Your task to perform on an android device: What's on my calendar today? Image 0: 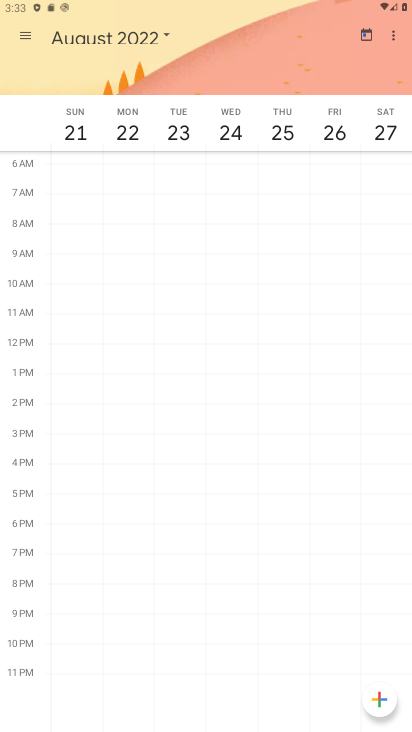
Step 0: press home button
Your task to perform on an android device: What's on my calendar today? Image 1: 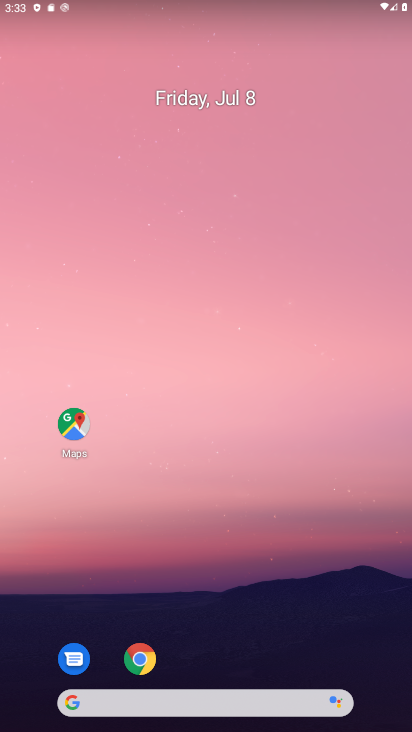
Step 1: drag from (312, 586) to (282, 24)
Your task to perform on an android device: What's on my calendar today? Image 2: 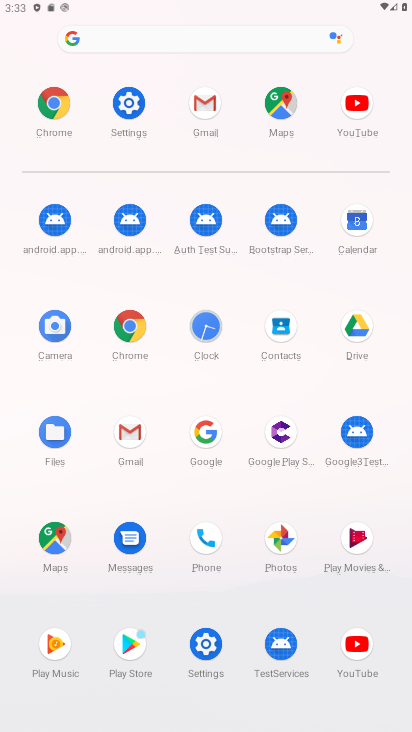
Step 2: click (355, 222)
Your task to perform on an android device: What's on my calendar today? Image 3: 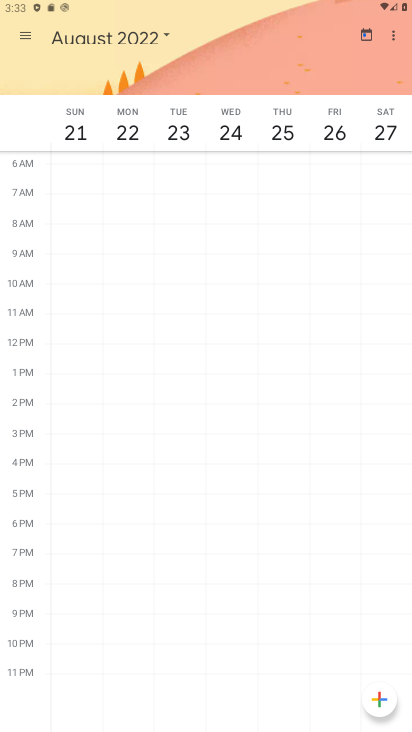
Step 3: click (150, 22)
Your task to perform on an android device: What's on my calendar today? Image 4: 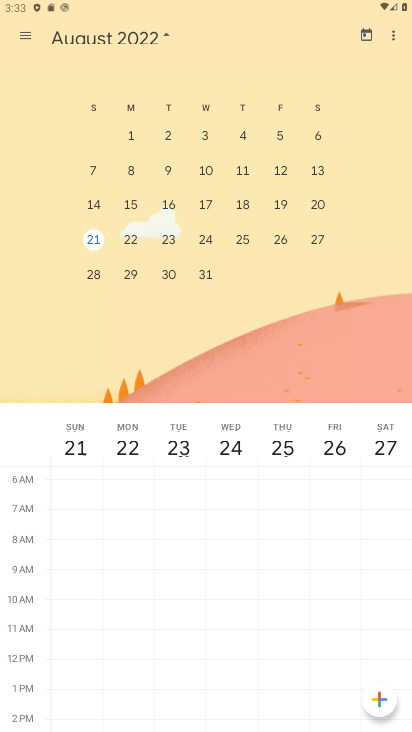
Step 4: drag from (80, 233) to (410, 260)
Your task to perform on an android device: What's on my calendar today? Image 5: 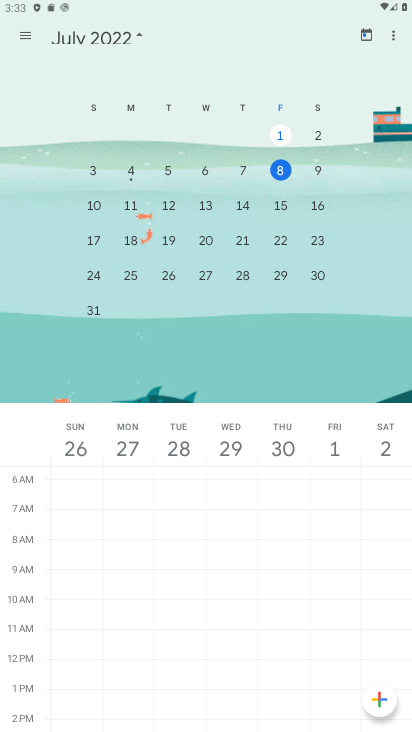
Step 5: click (277, 172)
Your task to perform on an android device: What's on my calendar today? Image 6: 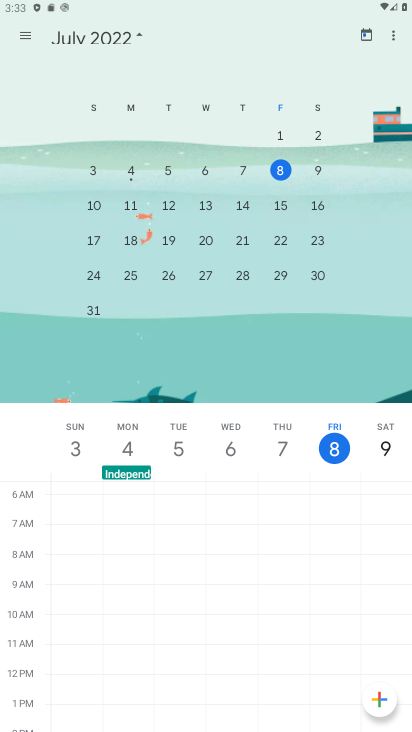
Step 6: click (35, 35)
Your task to perform on an android device: What's on my calendar today? Image 7: 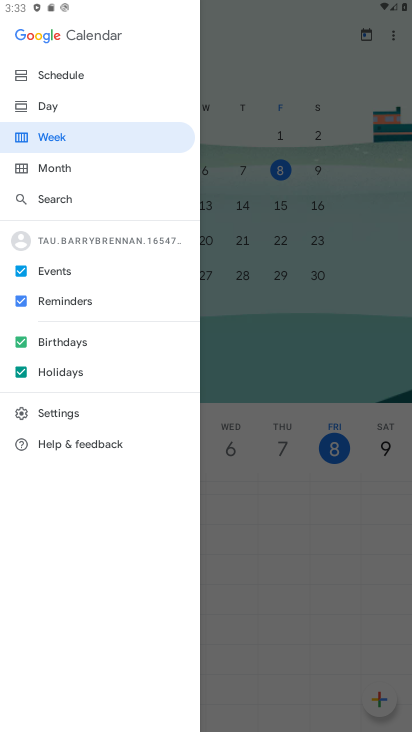
Step 7: click (112, 95)
Your task to perform on an android device: What's on my calendar today? Image 8: 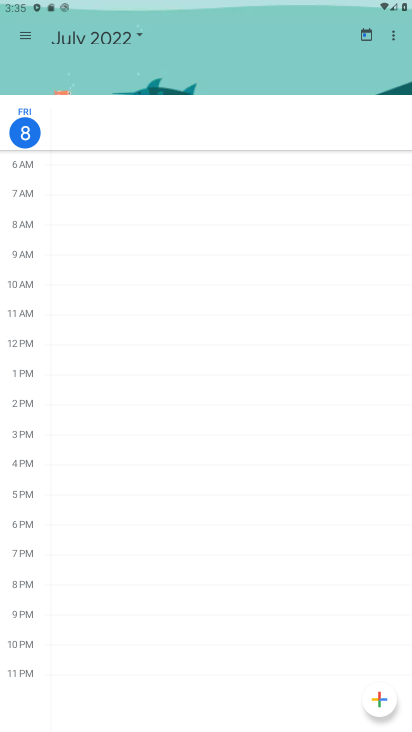
Step 8: task complete